Your task to perform on an android device: Open Google Image 0: 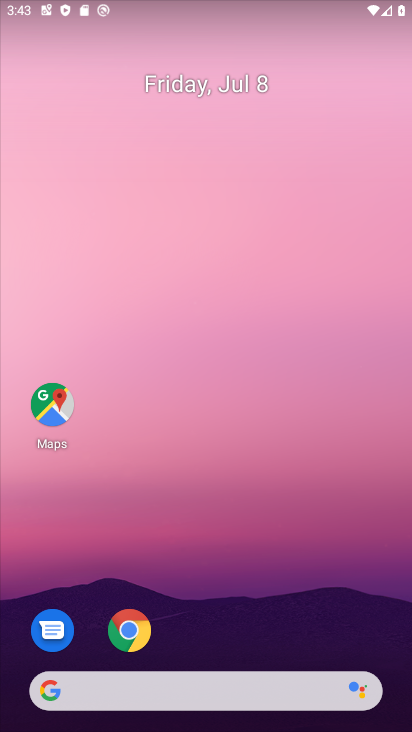
Step 0: drag from (198, 585) to (151, 116)
Your task to perform on an android device: Open Google Image 1: 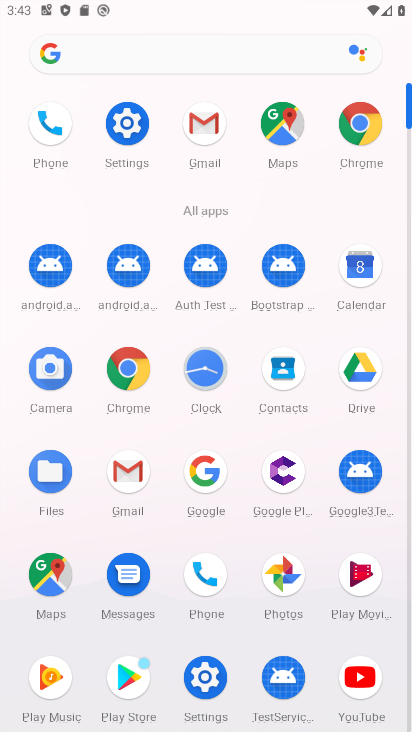
Step 1: click (202, 473)
Your task to perform on an android device: Open Google Image 2: 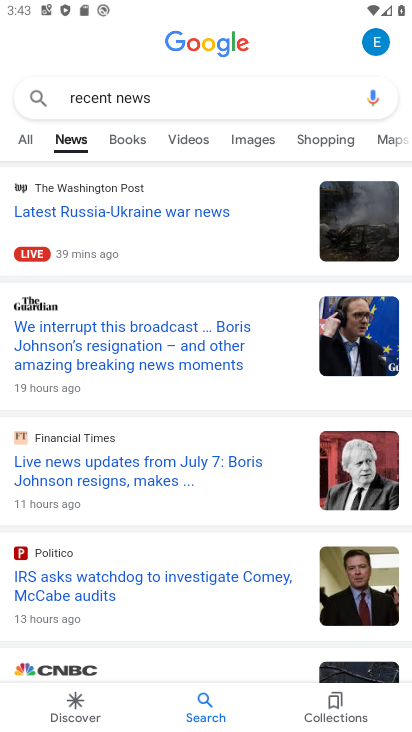
Step 2: task complete